Your task to perform on an android device: turn off javascript in the chrome app Image 0: 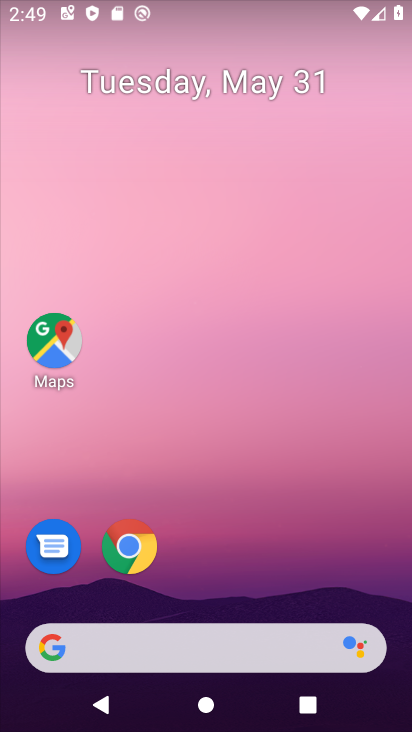
Step 0: click (132, 538)
Your task to perform on an android device: turn off javascript in the chrome app Image 1: 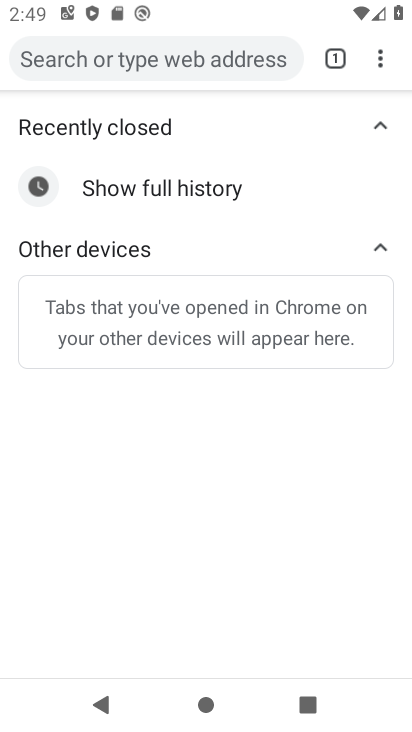
Step 1: click (377, 62)
Your task to perform on an android device: turn off javascript in the chrome app Image 2: 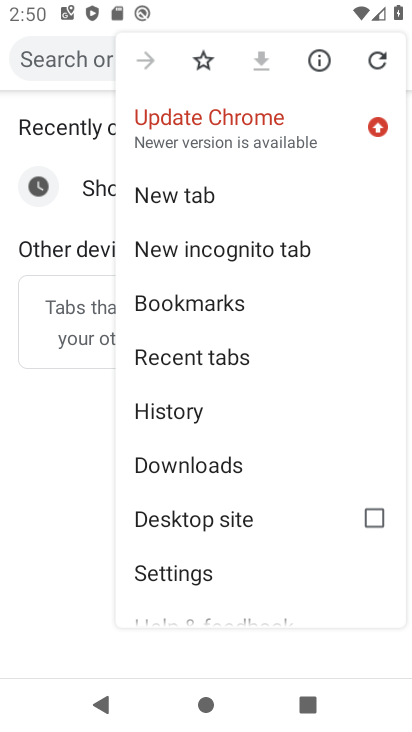
Step 2: click (218, 565)
Your task to perform on an android device: turn off javascript in the chrome app Image 3: 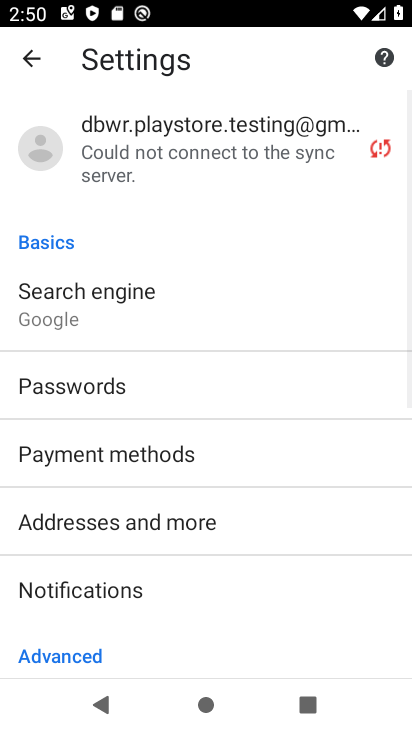
Step 3: drag from (224, 525) to (233, 291)
Your task to perform on an android device: turn off javascript in the chrome app Image 4: 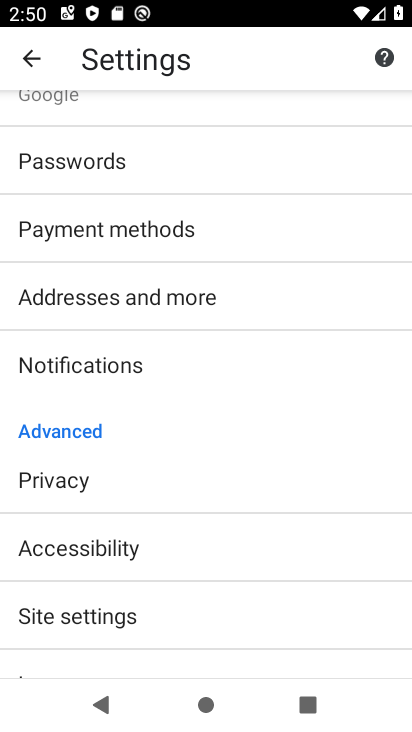
Step 4: click (162, 622)
Your task to perform on an android device: turn off javascript in the chrome app Image 5: 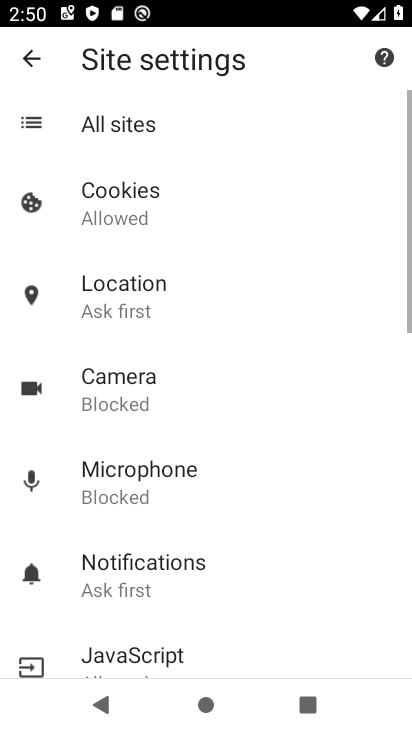
Step 5: drag from (245, 545) to (275, 325)
Your task to perform on an android device: turn off javascript in the chrome app Image 6: 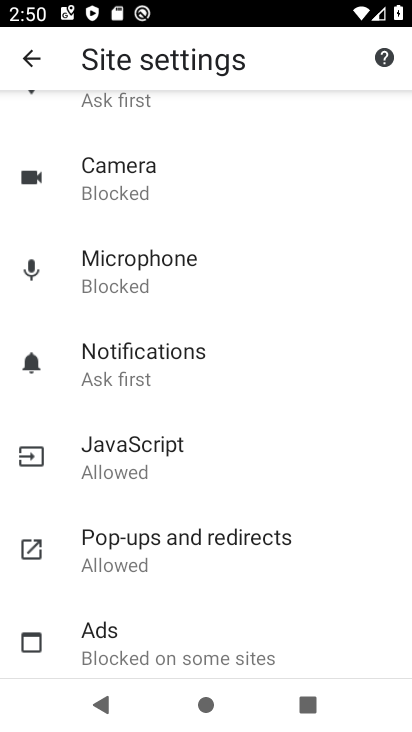
Step 6: click (193, 462)
Your task to perform on an android device: turn off javascript in the chrome app Image 7: 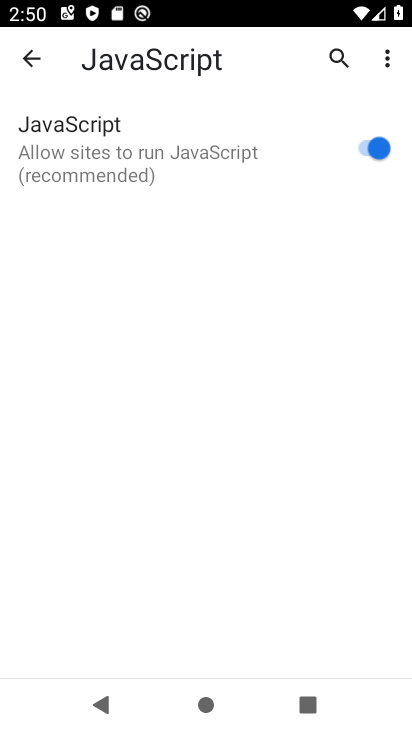
Step 7: click (367, 130)
Your task to perform on an android device: turn off javascript in the chrome app Image 8: 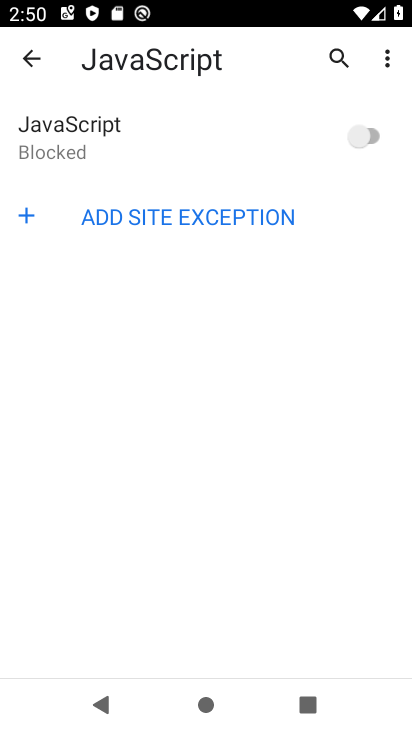
Step 8: task complete